Your task to perform on an android device: Search for Mexican restaurants on Maps Image 0: 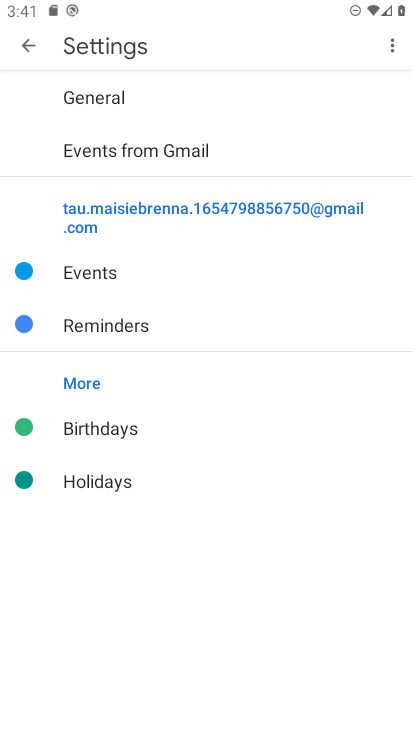
Step 0: drag from (229, 627) to (299, 115)
Your task to perform on an android device: Search for Mexican restaurants on Maps Image 1: 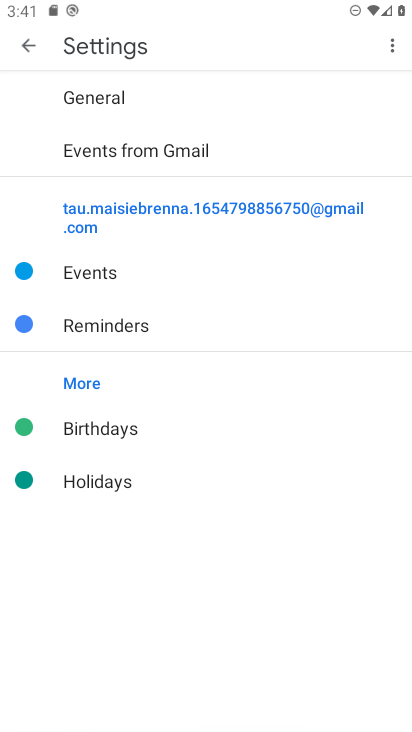
Step 1: press back button
Your task to perform on an android device: Search for Mexican restaurants on Maps Image 2: 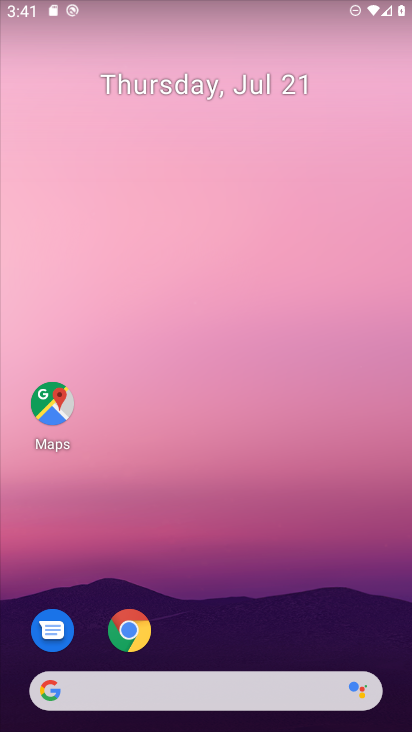
Step 2: drag from (231, 637) to (268, 29)
Your task to perform on an android device: Search for Mexican restaurants on Maps Image 3: 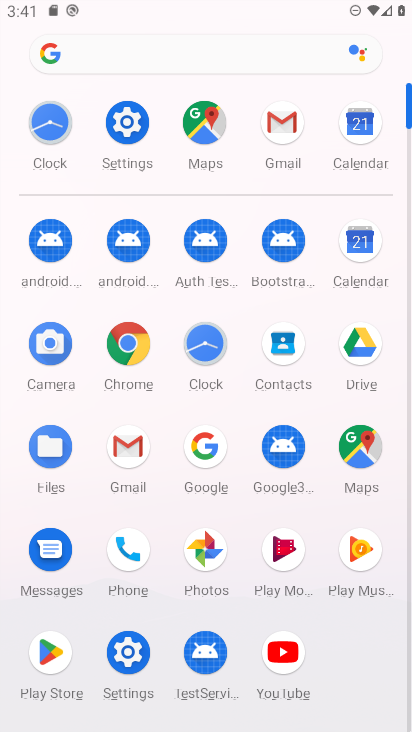
Step 3: click (211, 128)
Your task to perform on an android device: Search for Mexican restaurants on Maps Image 4: 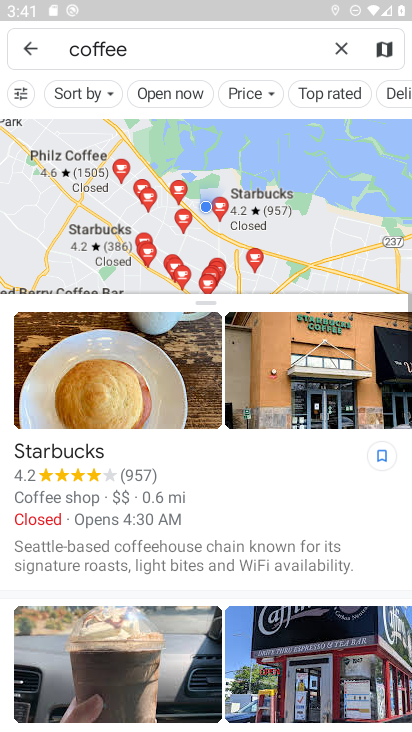
Step 4: click (334, 41)
Your task to perform on an android device: Search for Mexican restaurants on Maps Image 5: 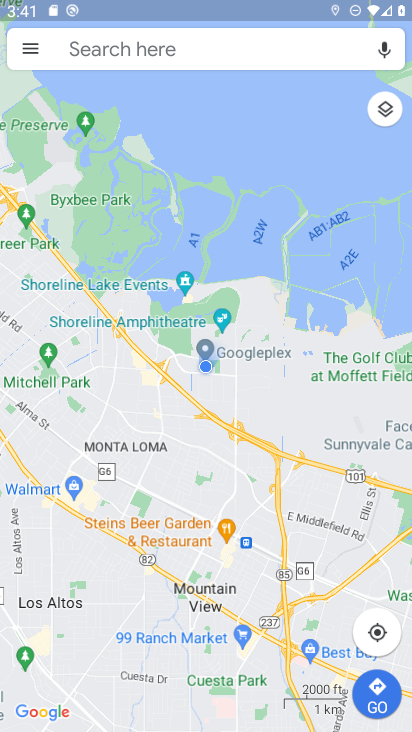
Step 5: click (184, 52)
Your task to perform on an android device: Search for Mexican restaurants on Maps Image 6: 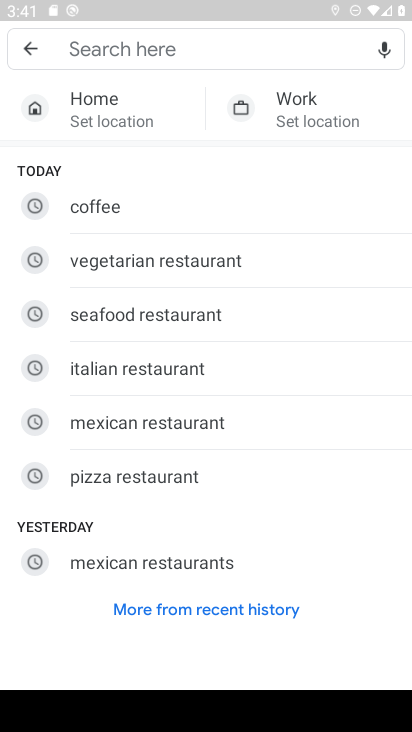
Step 6: click (125, 422)
Your task to perform on an android device: Search for Mexican restaurants on Maps Image 7: 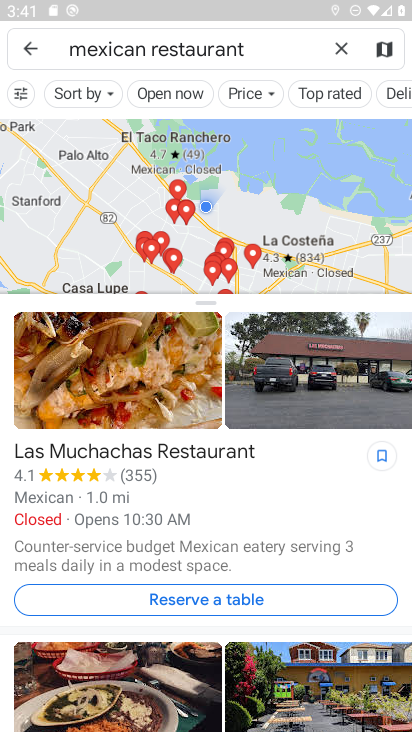
Step 7: task complete